Your task to perform on an android device: check android version Image 0: 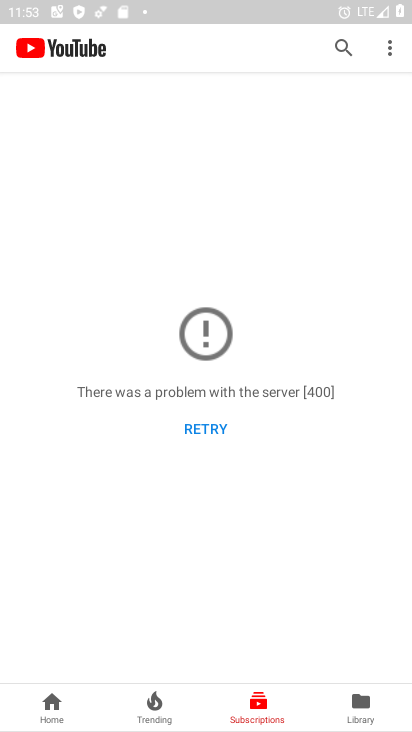
Step 0: press home button
Your task to perform on an android device: check android version Image 1: 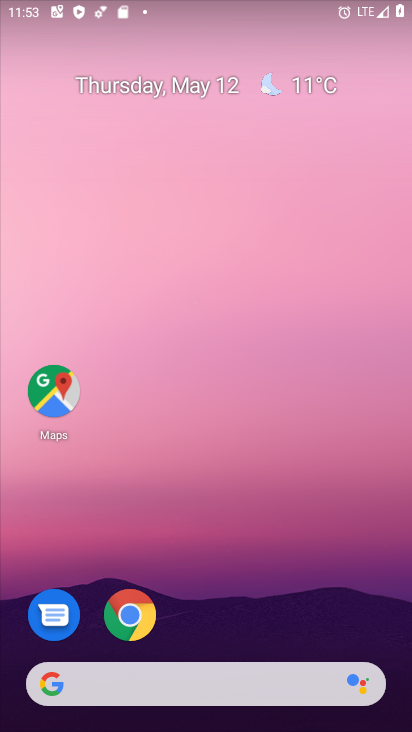
Step 1: drag from (254, 593) to (244, 100)
Your task to perform on an android device: check android version Image 2: 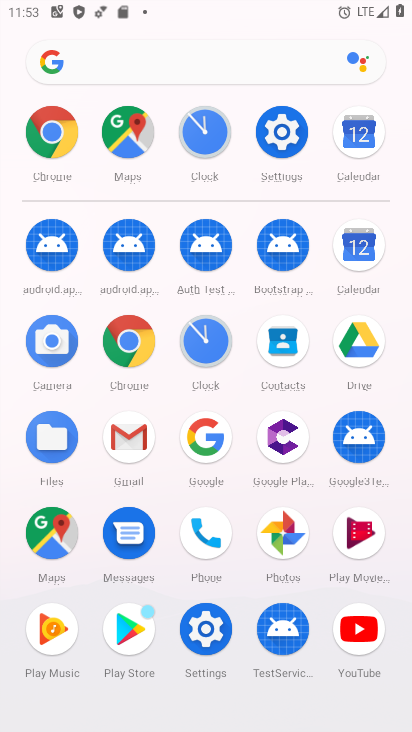
Step 2: click (268, 135)
Your task to perform on an android device: check android version Image 3: 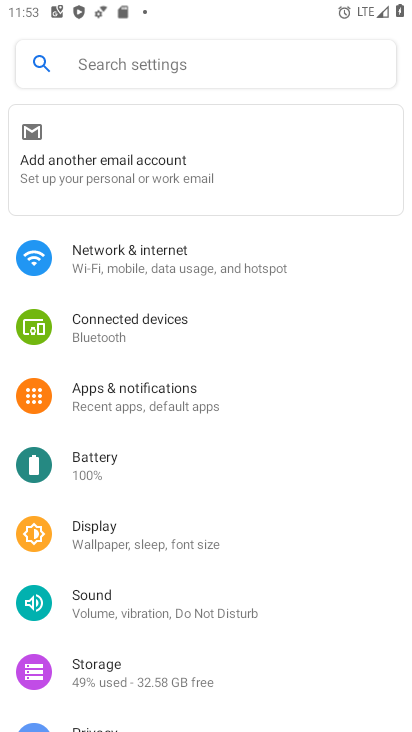
Step 3: drag from (222, 577) to (272, 146)
Your task to perform on an android device: check android version Image 4: 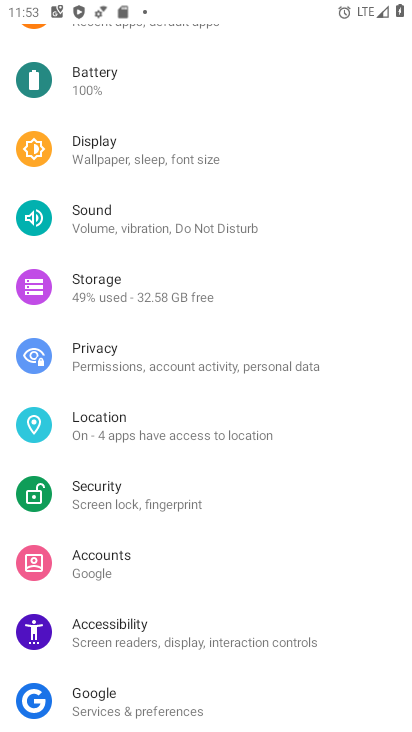
Step 4: drag from (212, 510) to (243, 180)
Your task to perform on an android device: check android version Image 5: 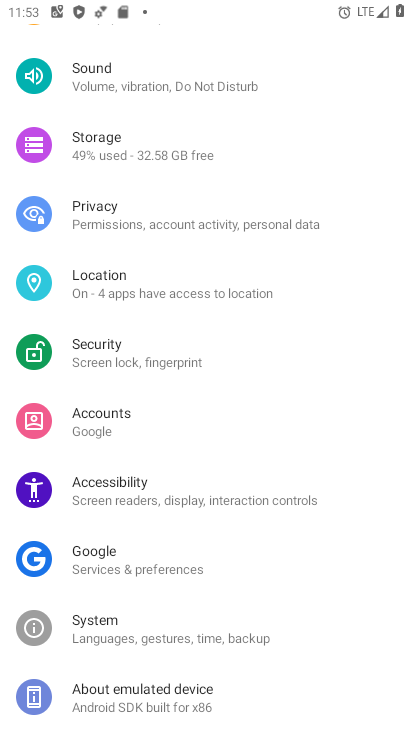
Step 5: click (180, 695)
Your task to perform on an android device: check android version Image 6: 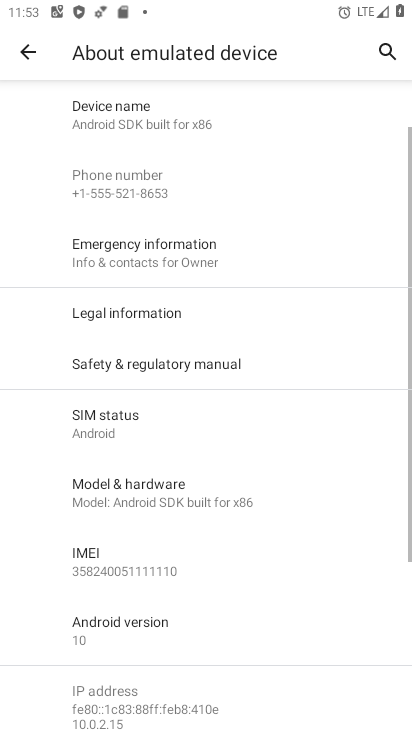
Step 6: click (192, 635)
Your task to perform on an android device: check android version Image 7: 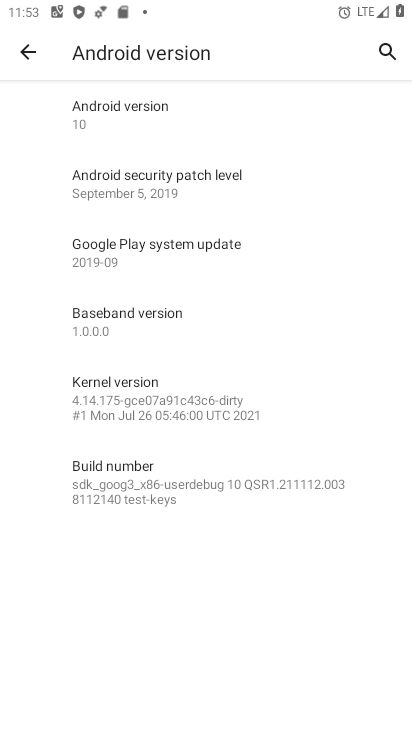
Step 7: task complete